Your task to perform on an android device: Open wifi settings Image 0: 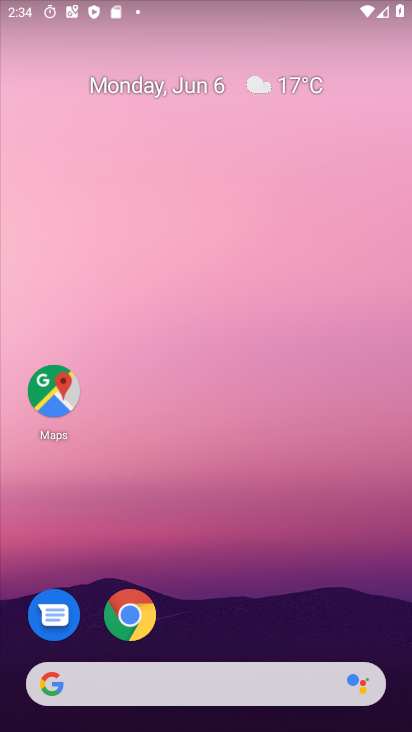
Step 0: drag from (234, 540) to (407, 65)
Your task to perform on an android device: Open wifi settings Image 1: 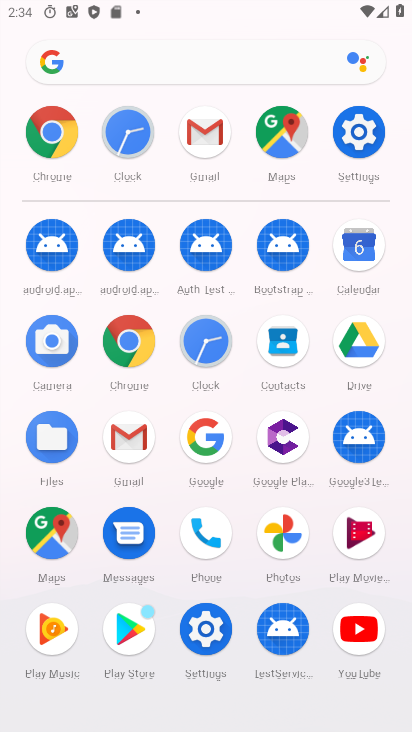
Step 1: click (353, 134)
Your task to perform on an android device: Open wifi settings Image 2: 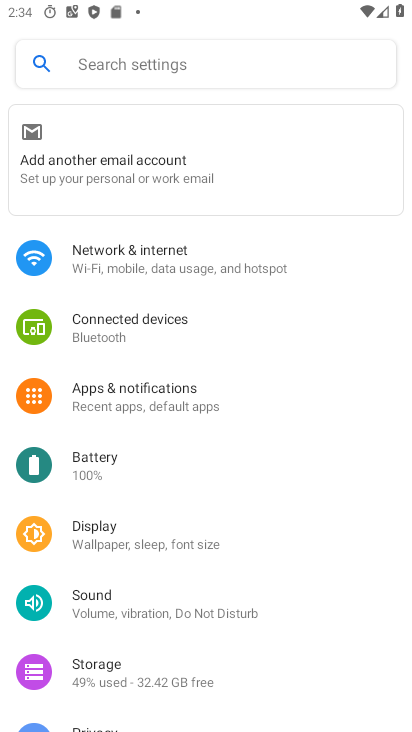
Step 2: click (156, 253)
Your task to perform on an android device: Open wifi settings Image 3: 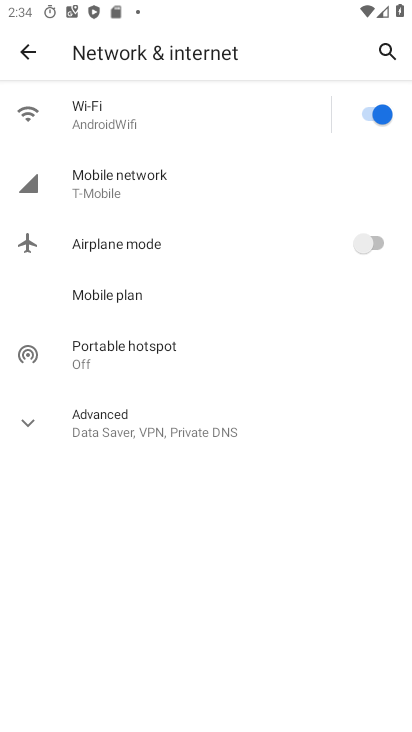
Step 3: click (185, 112)
Your task to perform on an android device: Open wifi settings Image 4: 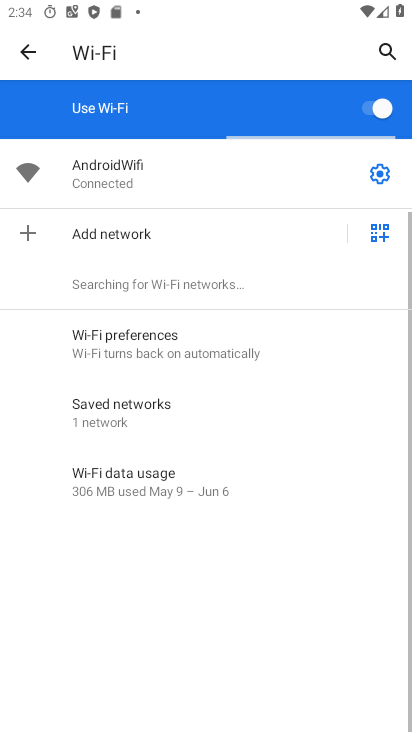
Step 4: drag from (236, 474) to (320, 128)
Your task to perform on an android device: Open wifi settings Image 5: 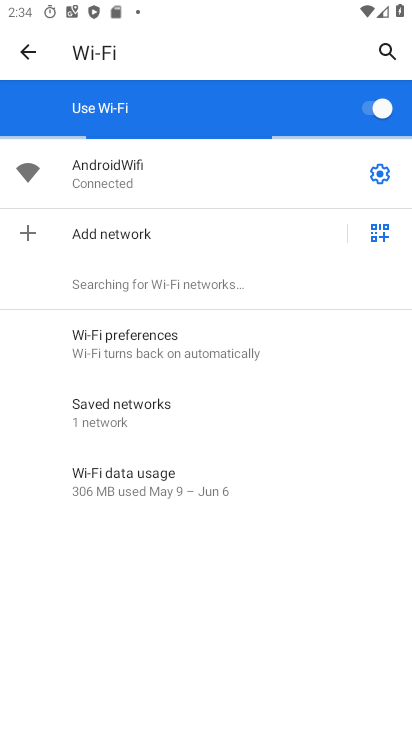
Step 5: click (384, 177)
Your task to perform on an android device: Open wifi settings Image 6: 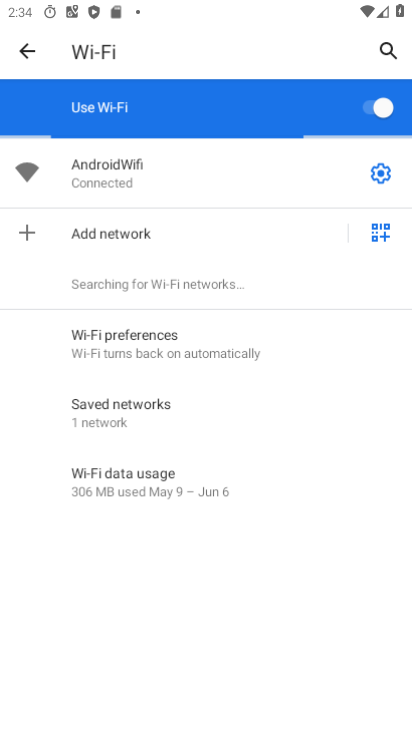
Step 6: task complete